Your task to perform on an android device: Open display settings Image 0: 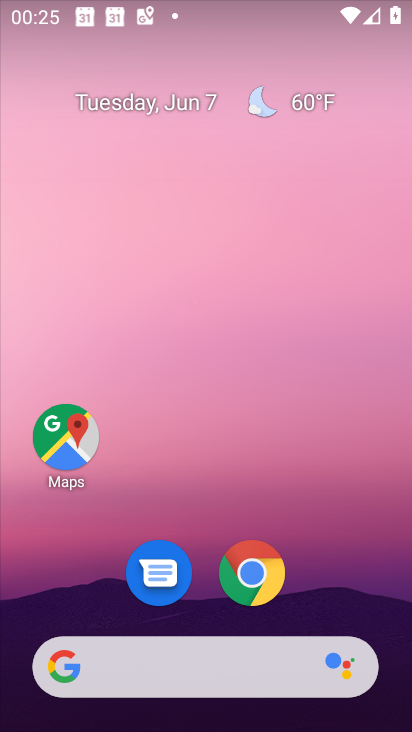
Step 0: press home button
Your task to perform on an android device: Open display settings Image 1: 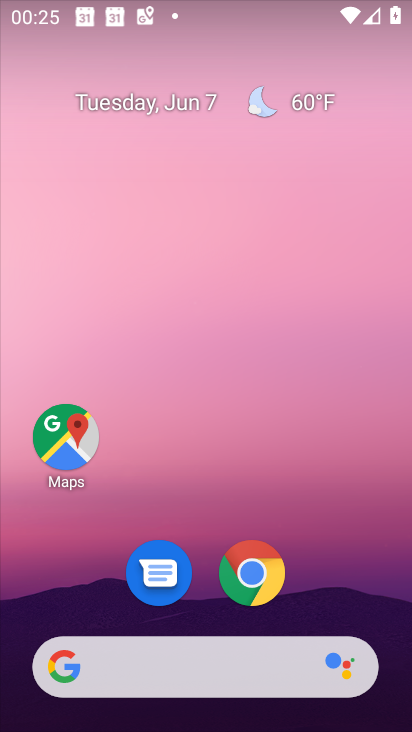
Step 1: drag from (323, 582) to (289, 91)
Your task to perform on an android device: Open display settings Image 2: 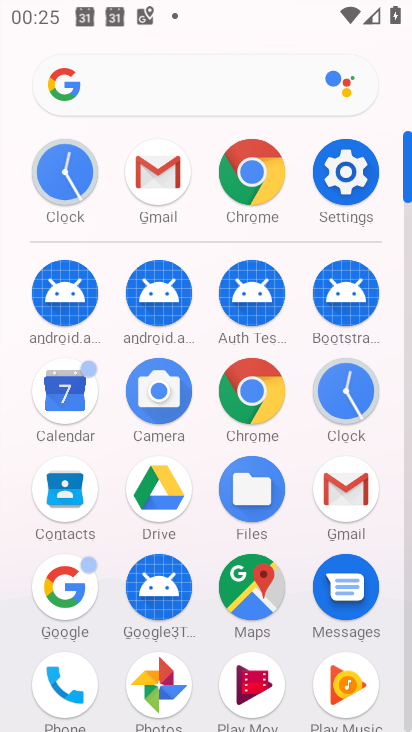
Step 2: click (351, 170)
Your task to perform on an android device: Open display settings Image 3: 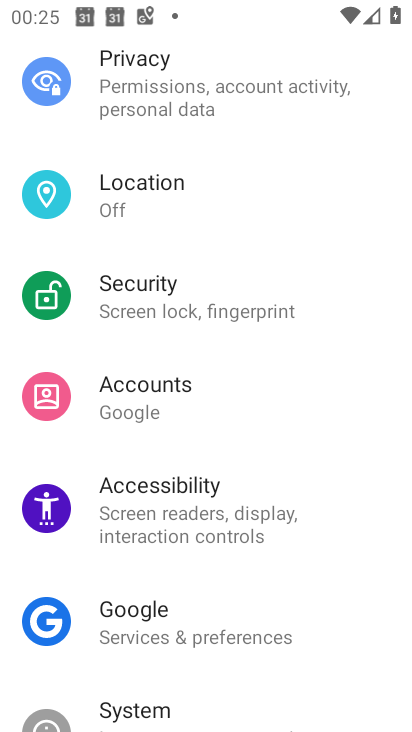
Step 3: drag from (282, 191) to (301, 707)
Your task to perform on an android device: Open display settings Image 4: 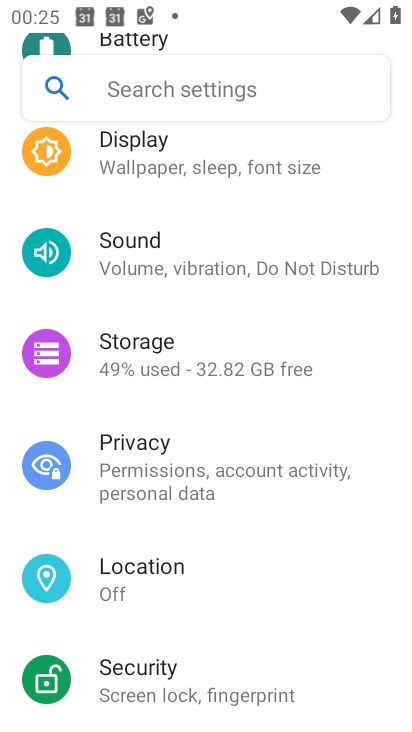
Step 4: drag from (280, 416) to (282, 643)
Your task to perform on an android device: Open display settings Image 5: 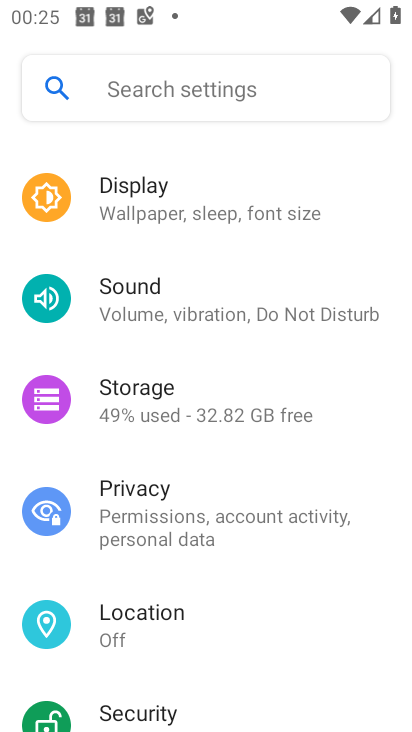
Step 5: click (179, 236)
Your task to perform on an android device: Open display settings Image 6: 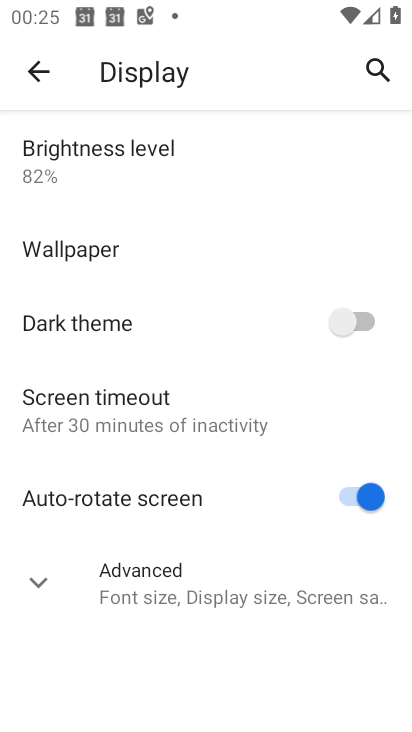
Step 6: task complete